Your task to perform on an android device: all mails in gmail Image 0: 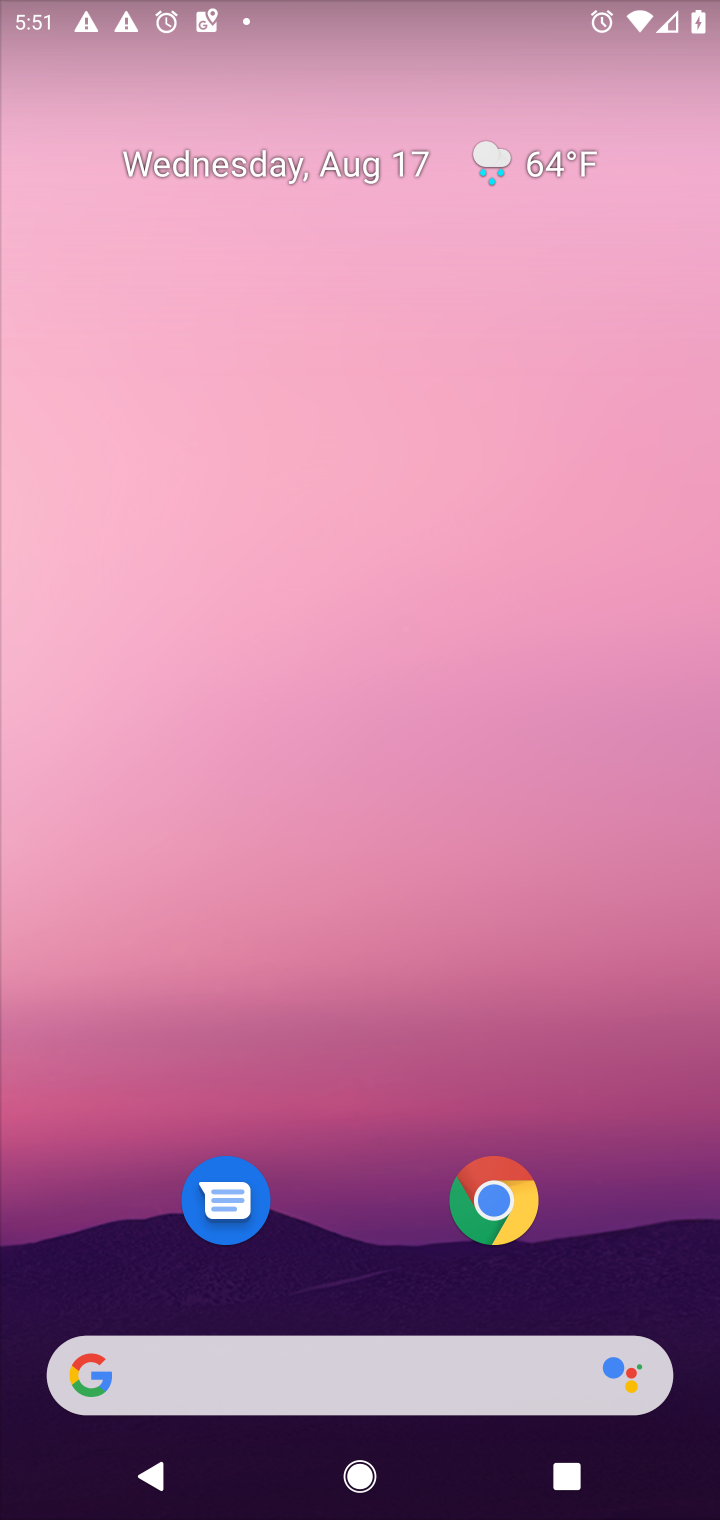
Step 0: drag from (410, 794) to (412, 214)
Your task to perform on an android device: all mails in gmail Image 1: 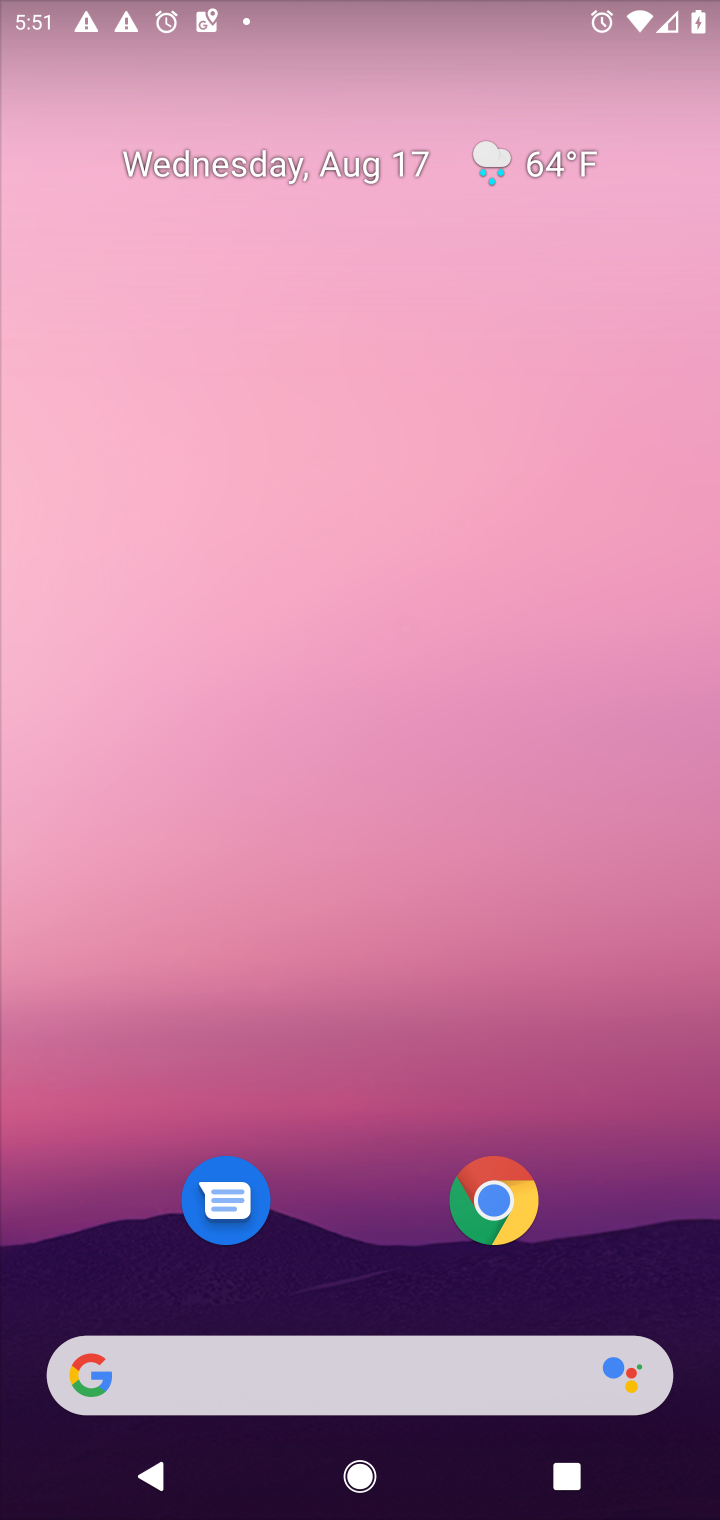
Step 1: drag from (354, 1252) to (457, 43)
Your task to perform on an android device: all mails in gmail Image 2: 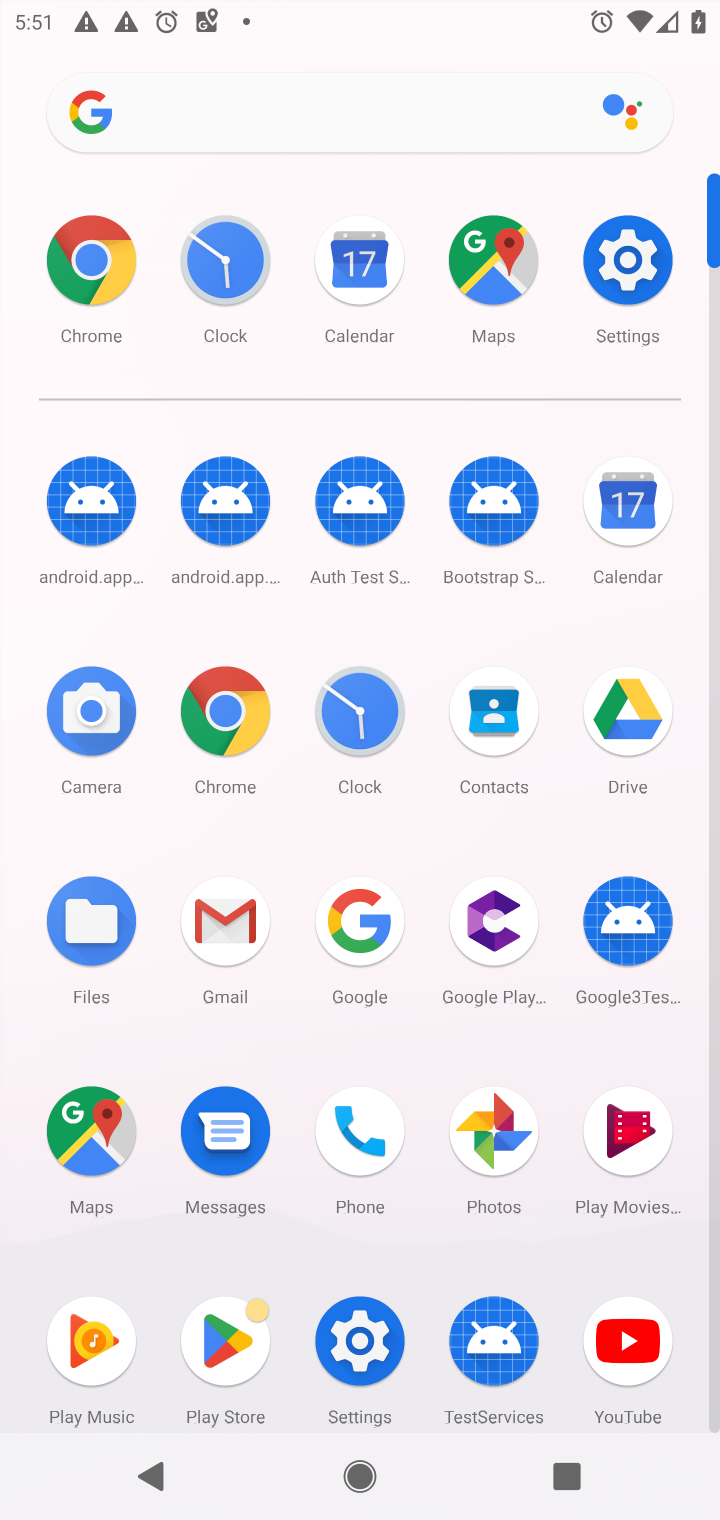
Step 2: click (236, 931)
Your task to perform on an android device: all mails in gmail Image 3: 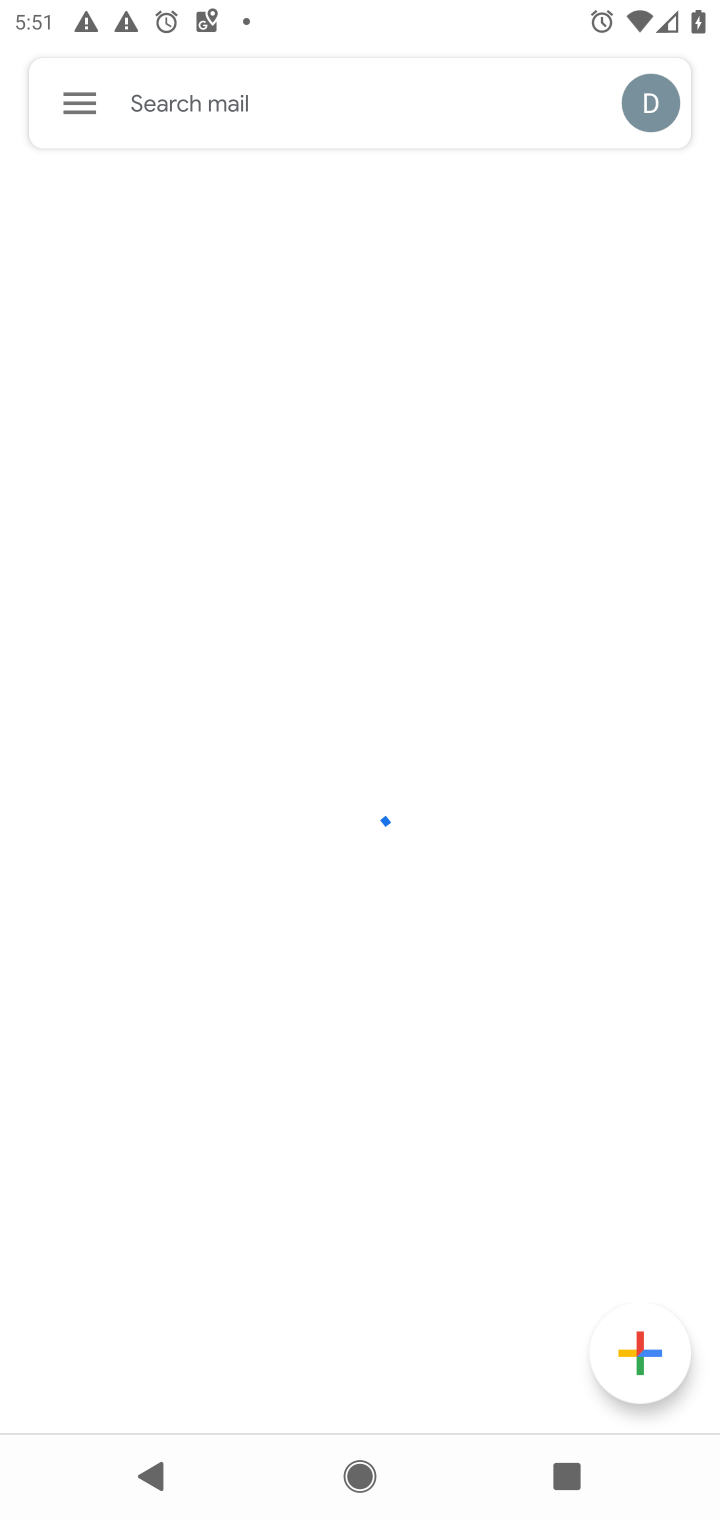
Step 3: click (71, 100)
Your task to perform on an android device: all mails in gmail Image 4: 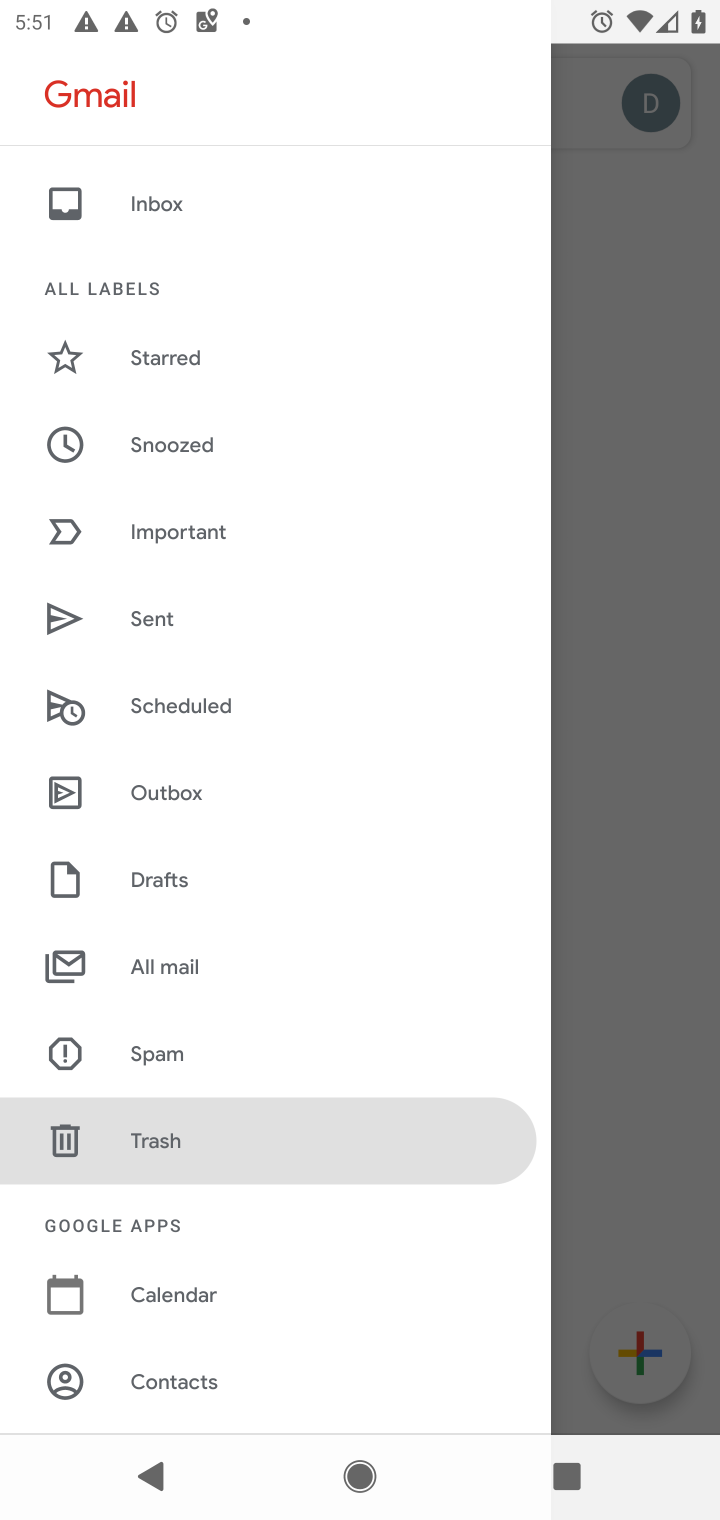
Step 4: click (164, 961)
Your task to perform on an android device: all mails in gmail Image 5: 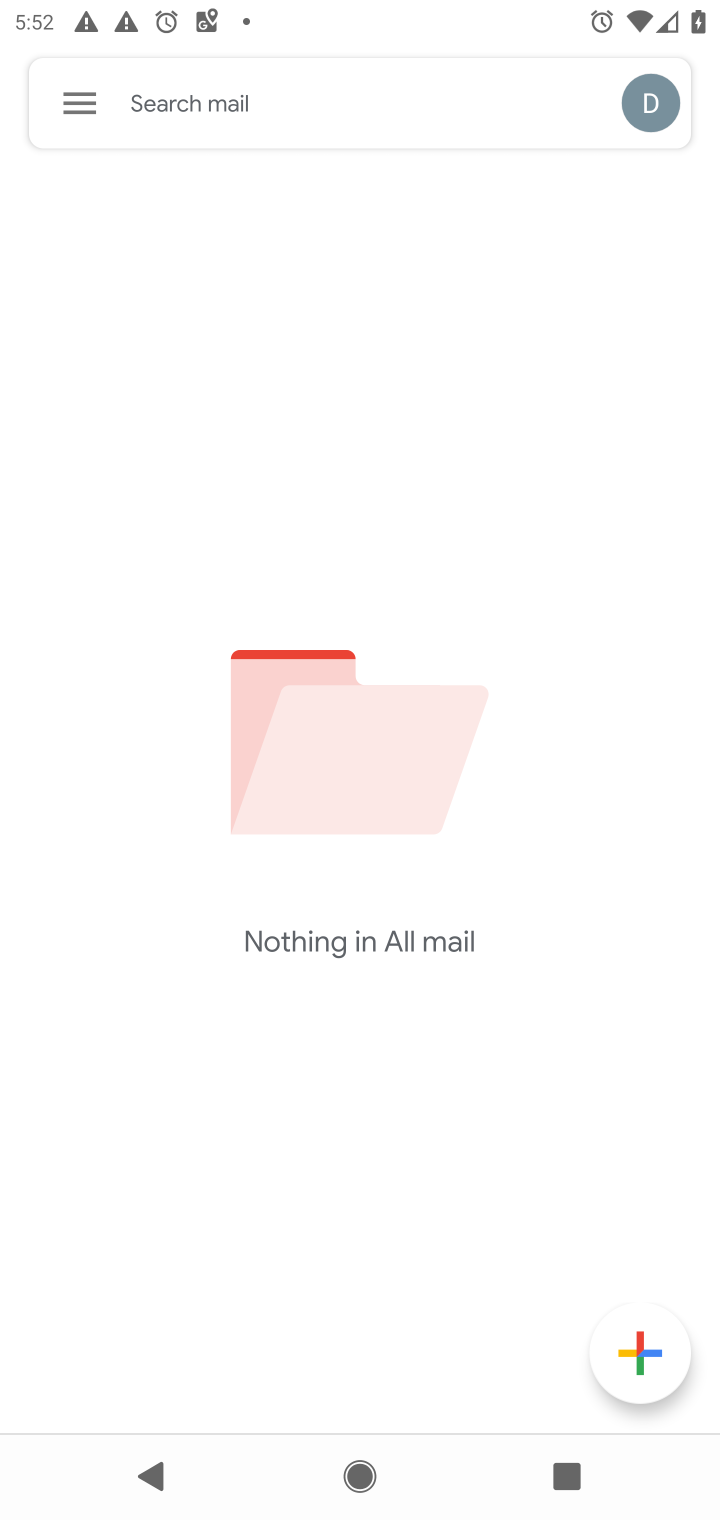
Step 5: task complete